Your task to perform on an android device: create a new album in the google photos Image 0: 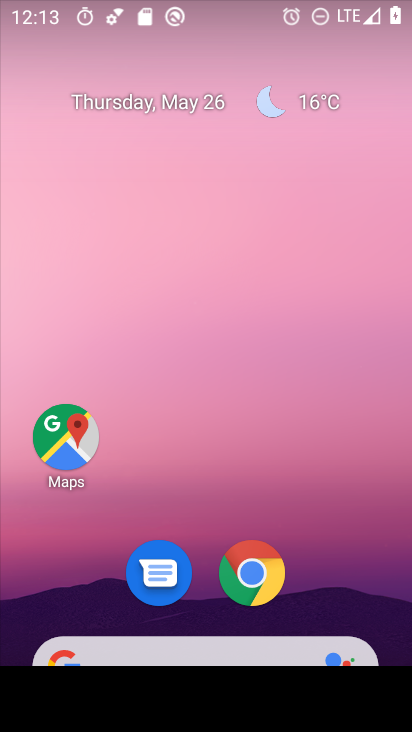
Step 0: drag from (365, 615) to (389, 0)
Your task to perform on an android device: create a new album in the google photos Image 1: 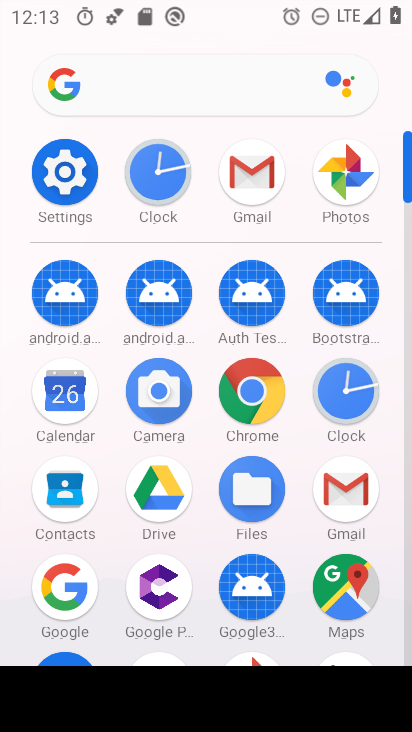
Step 1: click (338, 176)
Your task to perform on an android device: create a new album in the google photos Image 2: 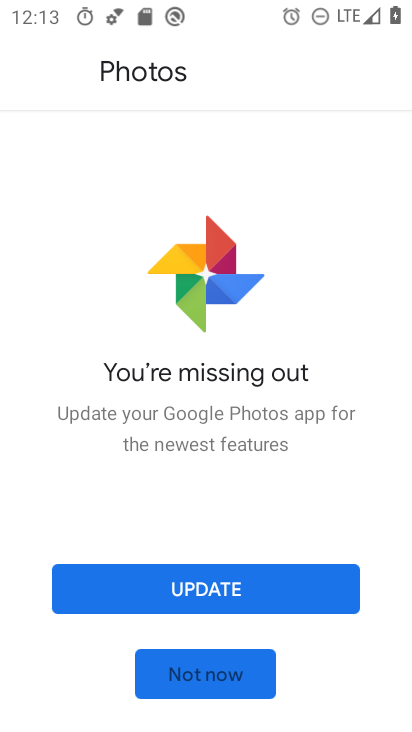
Step 2: click (192, 679)
Your task to perform on an android device: create a new album in the google photos Image 3: 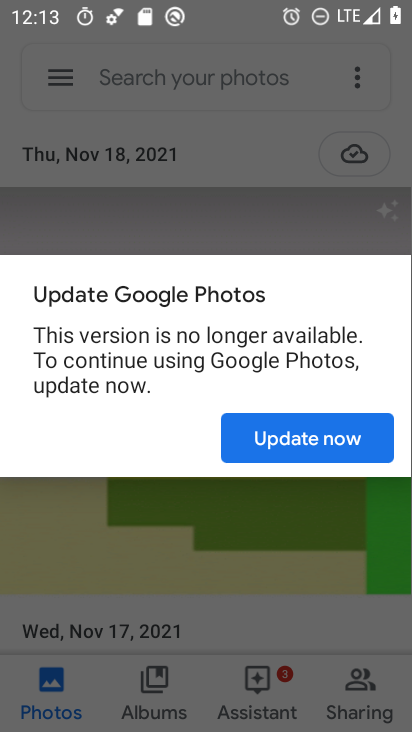
Step 3: click (286, 443)
Your task to perform on an android device: create a new album in the google photos Image 4: 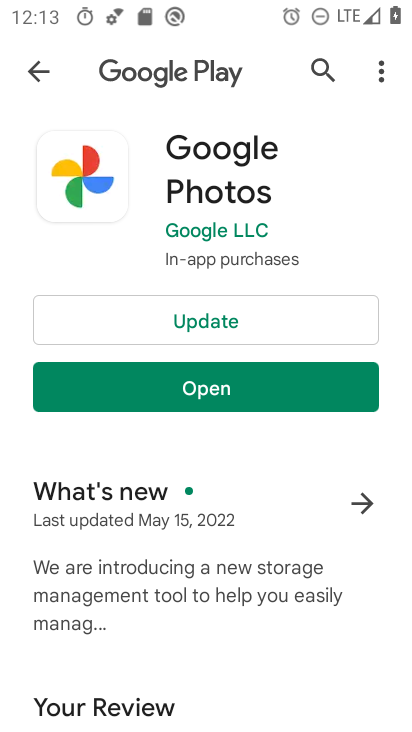
Step 4: click (175, 407)
Your task to perform on an android device: create a new album in the google photos Image 5: 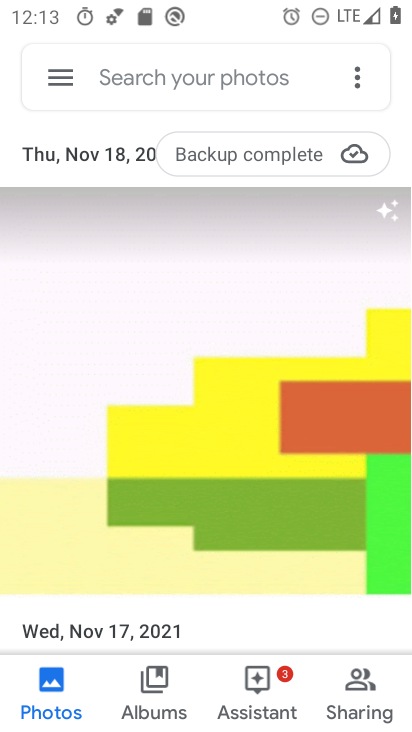
Step 5: drag from (149, 422) to (161, 72)
Your task to perform on an android device: create a new album in the google photos Image 6: 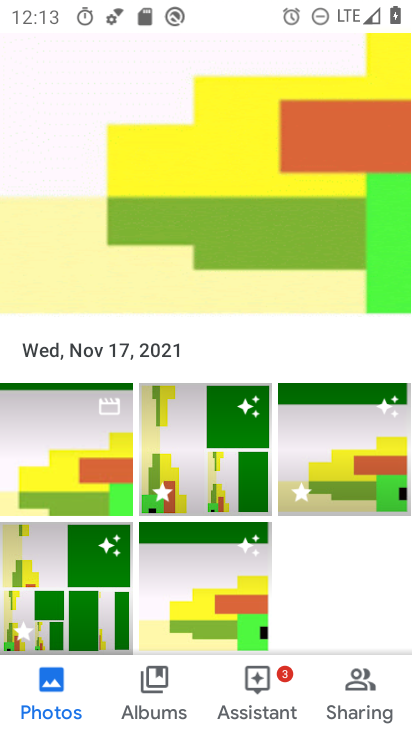
Step 6: click (180, 441)
Your task to perform on an android device: create a new album in the google photos Image 7: 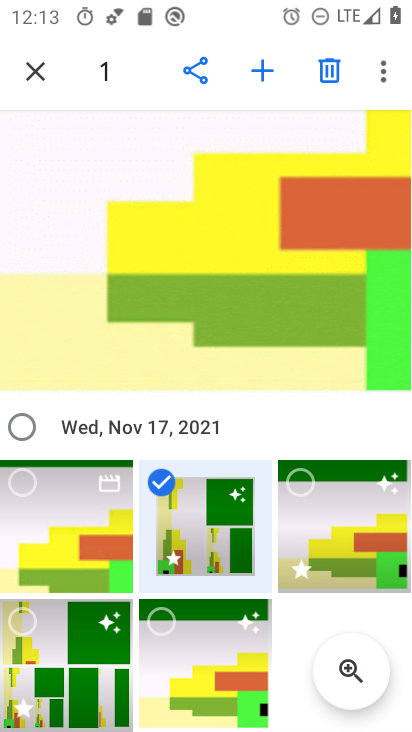
Step 7: click (318, 505)
Your task to perform on an android device: create a new album in the google photos Image 8: 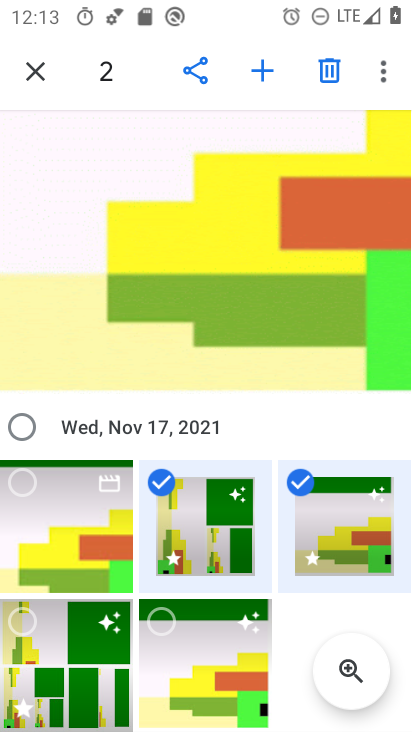
Step 8: click (258, 71)
Your task to perform on an android device: create a new album in the google photos Image 9: 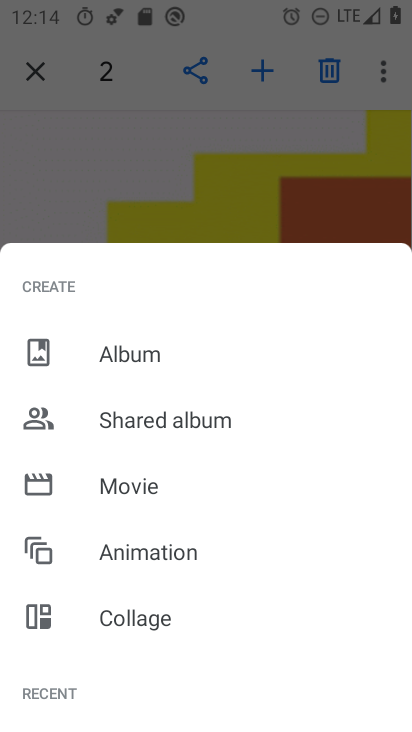
Step 9: click (132, 362)
Your task to perform on an android device: create a new album in the google photos Image 10: 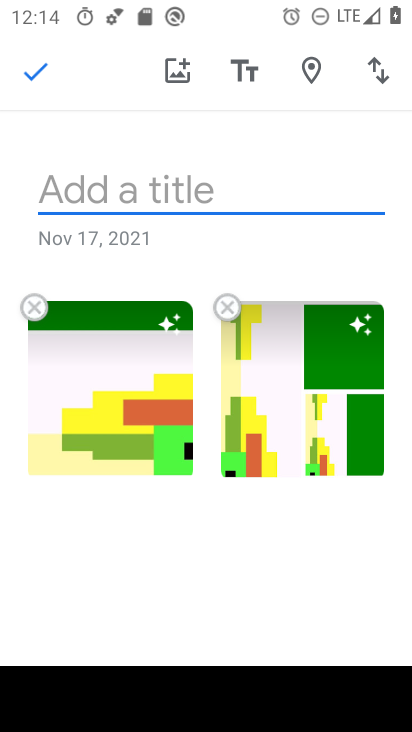
Step 10: click (85, 197)
Your task to perform on an android device: create a new album in the google photos Image 11: 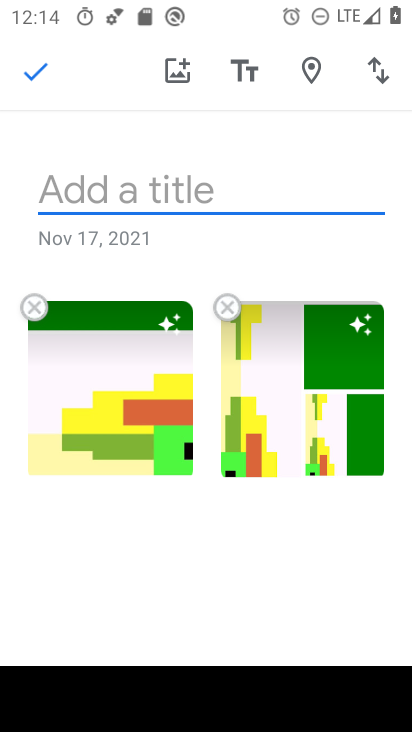
Step 11: type "new5"
Your task to perform on an android device: create a new album in the google photos Image 12: 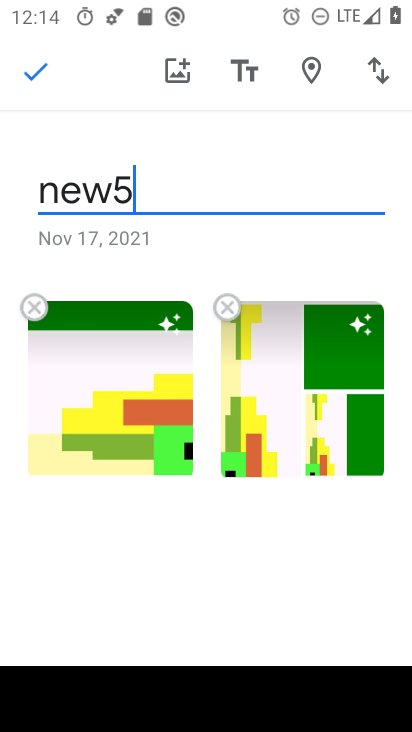
Step 12: click (38, 68)
Your task to perform on an android device: create a new album in the google photos Image 13: 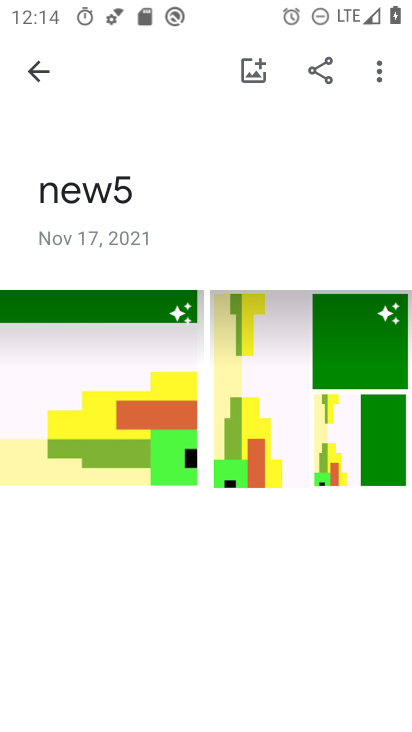
Step 13: task complete